Your task to perform on an android device: turn on the 12-hour format for clock Image 0: 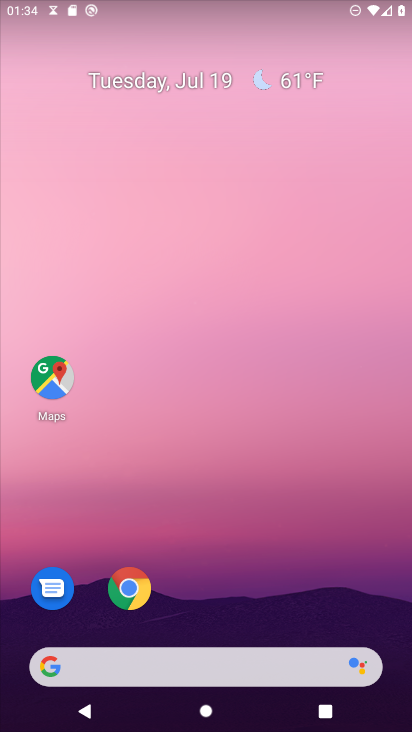
Step 0: press home button
Your task to perform on an android device: turn on the 12-hour format for clock Image 1: 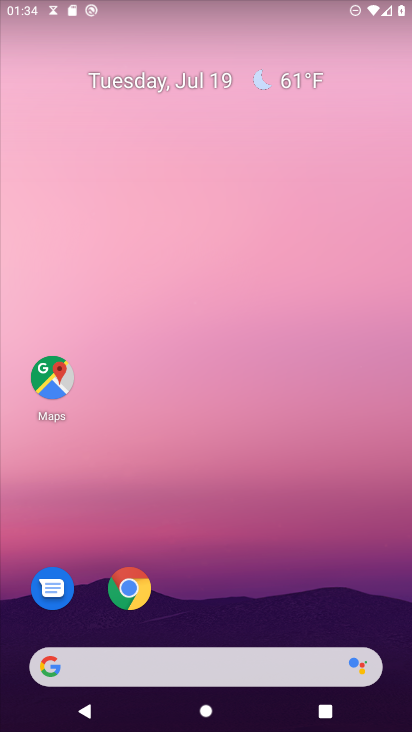
Step 1: drag from (269, 659) to (247, 186)
Your task to perform on an android device: turn on the 12-hour format for clock Image 2: 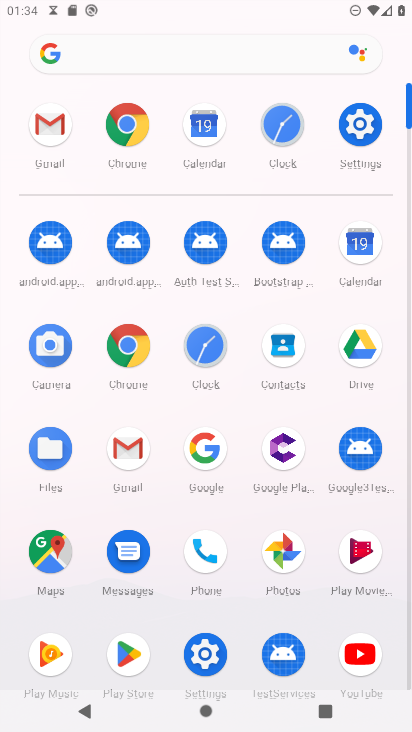
Step 2: click (205, 354)
Your task to perform on an android device: turn on the 12-hour format for clock Image 3: 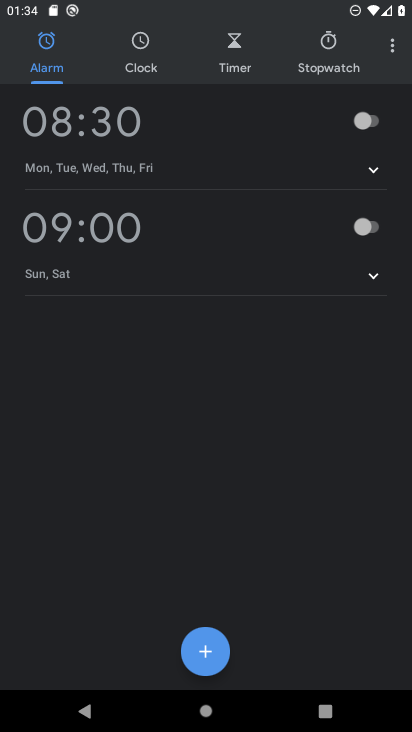
Step 3: click (384, 56)
Your task to perform on an android device: turn on the 12-hour format for clock Image 4: 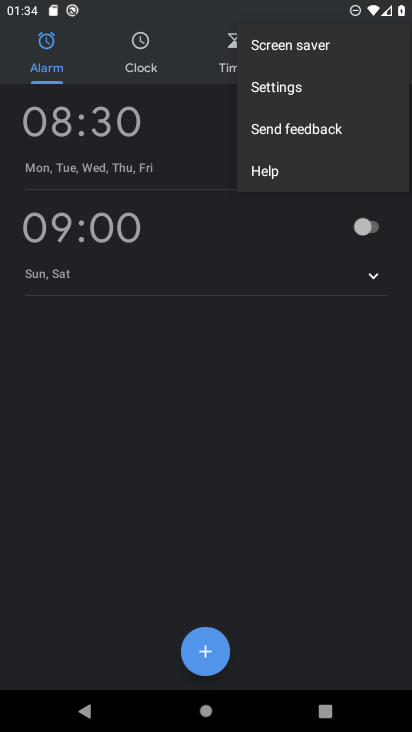
Step 4: click (298, 90)
Your task to perform on an android device: turn on the 12-hour format for clock Image 5: 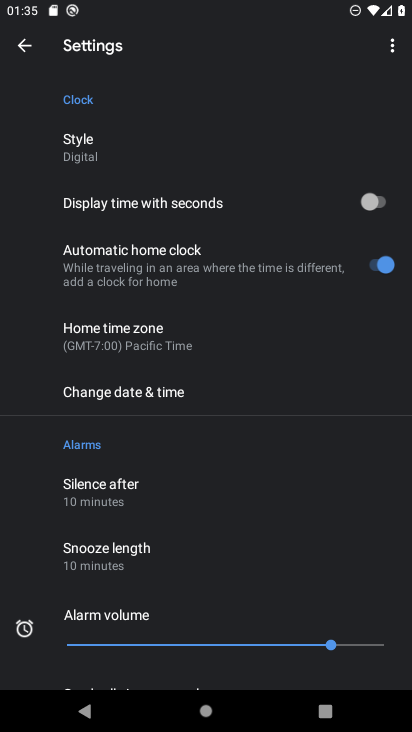
Step 5: click (164, 403)
Your task to perform on an android device: turn on the 12-hour format for clock Image 6: 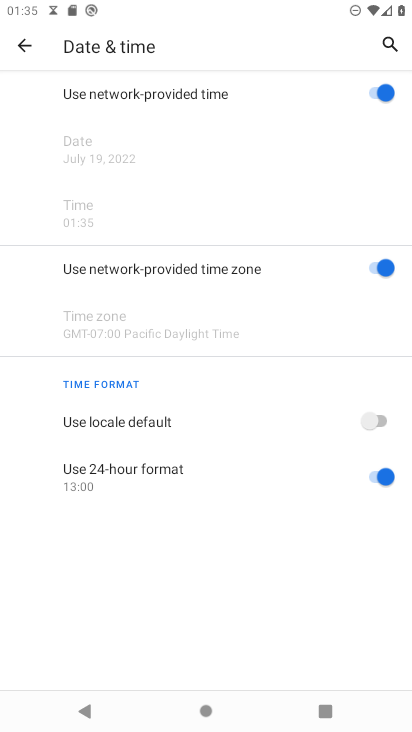
Step 6: click (369, 480)
Your task to perform on an android device: turn on the 12-hour format for clock Image 7: 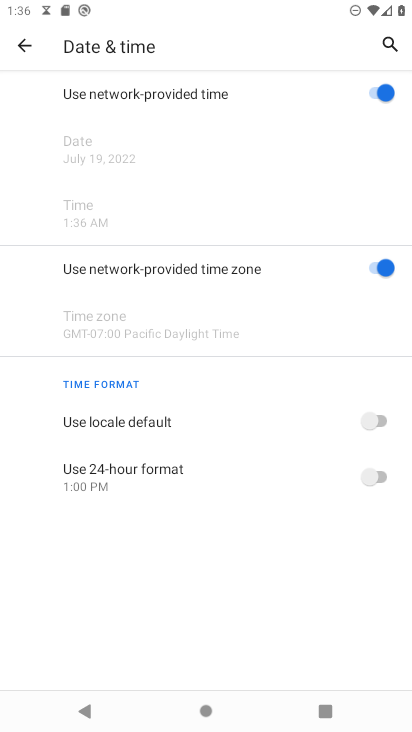
Step 7: task complete